Your task to perform on an android device: turn off notifications in google photos Image 0: 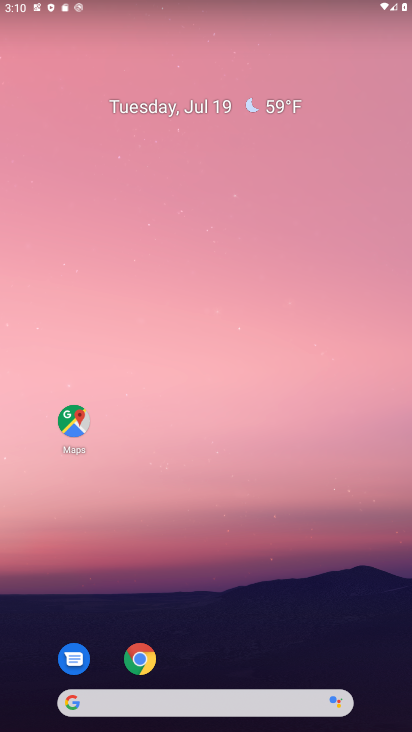
Step 0: drag from (205, 706) to (222, 296)
Your task to perform on an android device: turn off notifications in google photos Image 1: 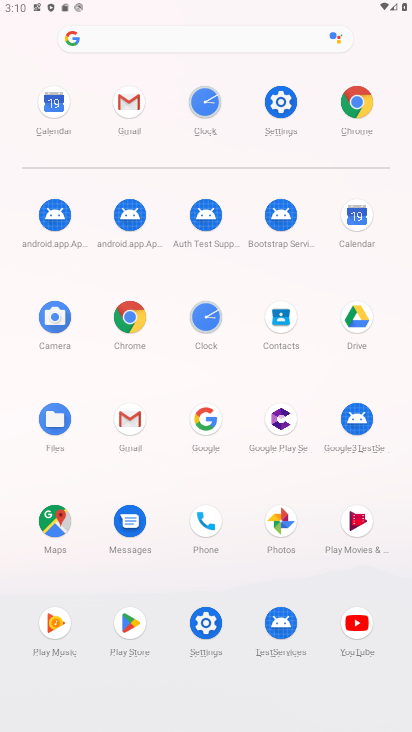
Step 1: click (282, 522)
Your task to perform on an android device: turn off notifications in google photos Image 2: 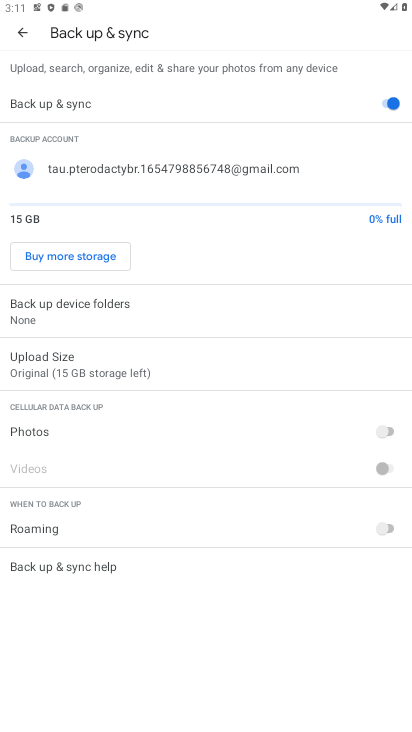
Step 2: press back button
Your task to perform on an android device: turn off notifications in google photos Image 3: 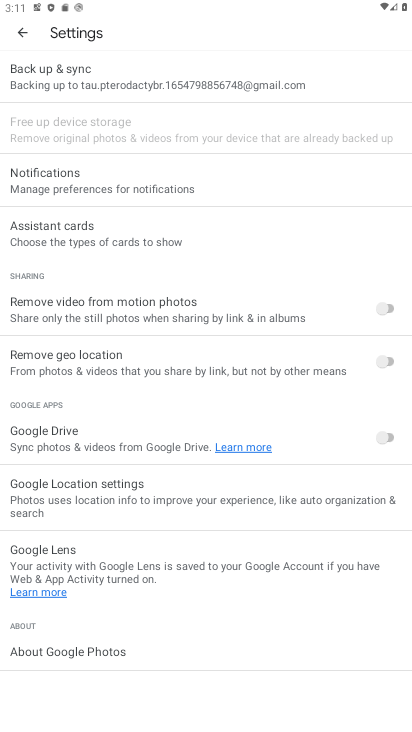
Step 3: click (120, 188)
Your task to perform on an android device: turn off notifications in google photos Image 4: 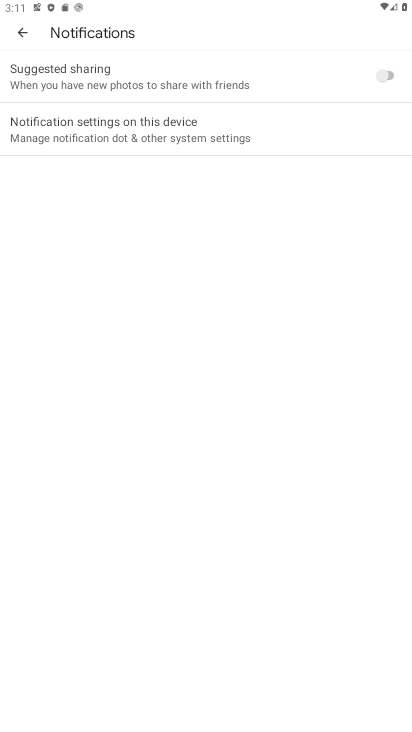
Step 4: click (161, 134)
Your task to perform on an android device: turn off notifications in google photos Image 5: 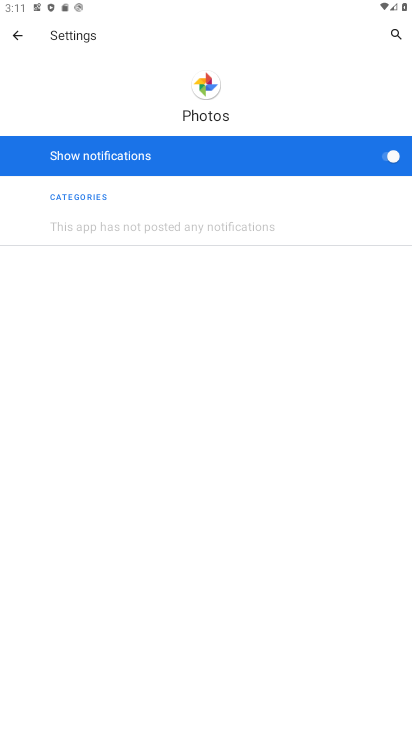
Step 5: click (385, 159)
Your task to perform on an android device: turn off notifications in google photos Image 6: 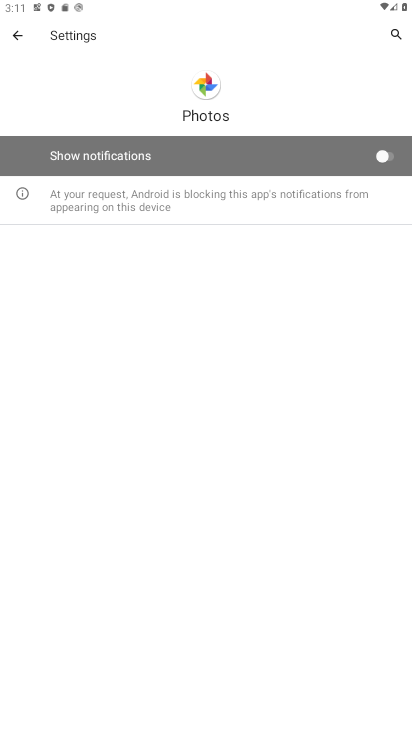
Step 6: task complete